Your task to perform on an android device: Go to network settings Image 0: 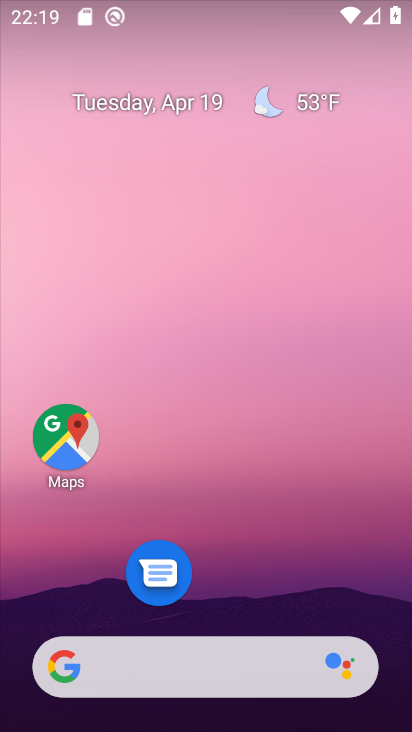
Step 0: drag from (245, 616) to (94, 21)
Your task to perform on an android device: Go to network settings Image 1: 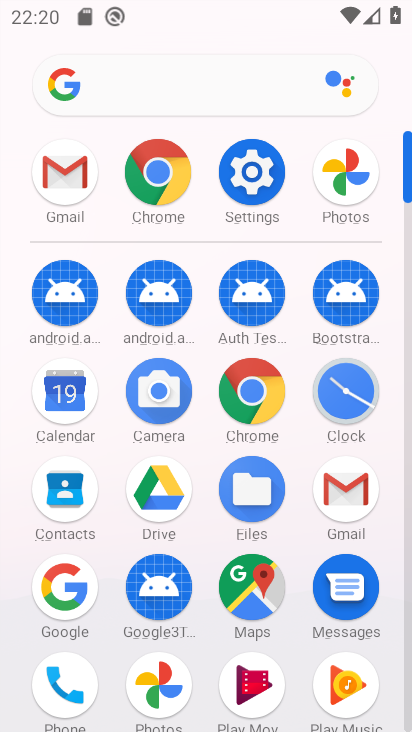
Step 1: click (254, 163)
Your task to perform on an android device: Go to network settings Image 2: 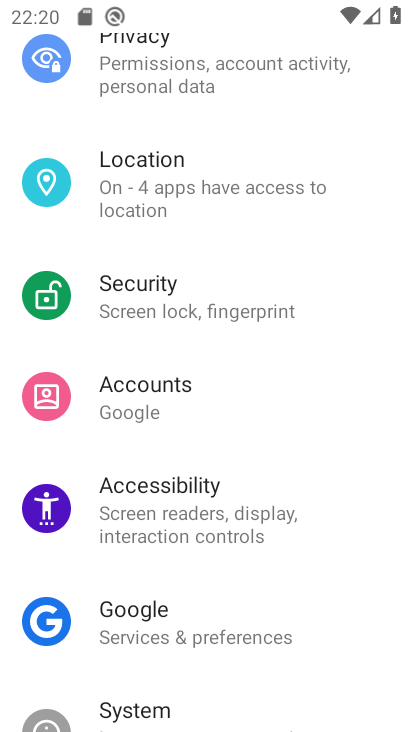
Step 2: drag from (194, 113) to (205, 627)
Your task to perform on an android device: Go to network settings Image 3: 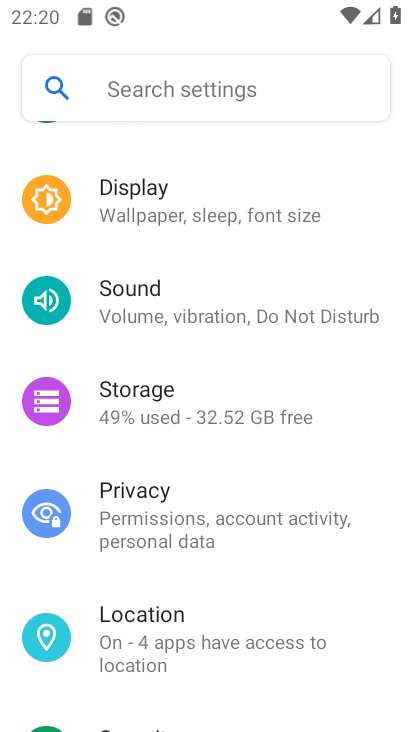
Step 3: drag from (224, 191) to (212, 580)
Your task to perform on an android device: Go to network settings Image 4: 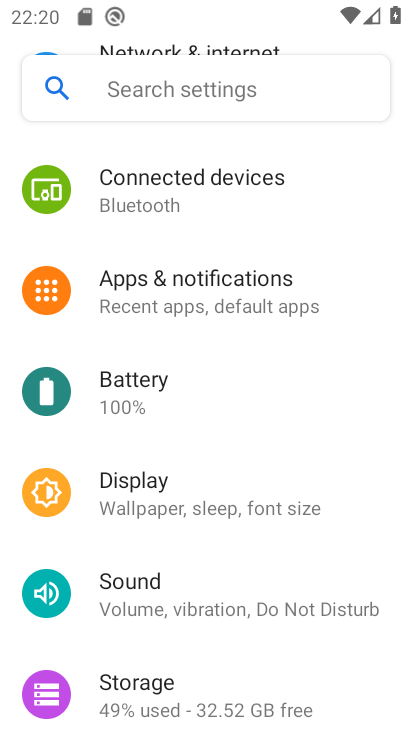
Step 4: drag from (189, 209) to (196, 684)
Your task to perform on an android device: Go to network settings Image 5: 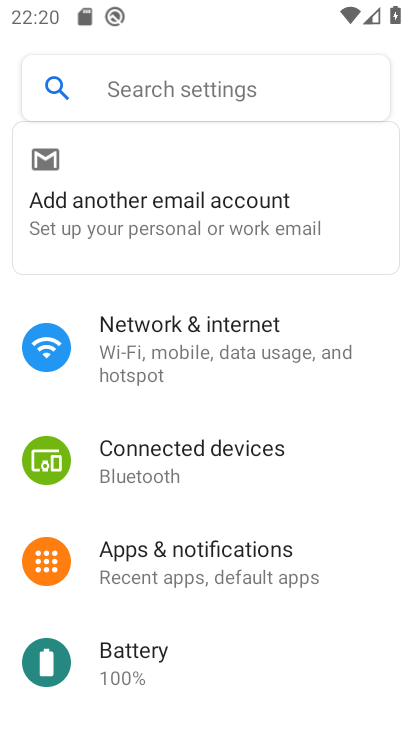
Step 5: click (174, 352)
Your task to perform on an android device: Go to network settings Image 6: 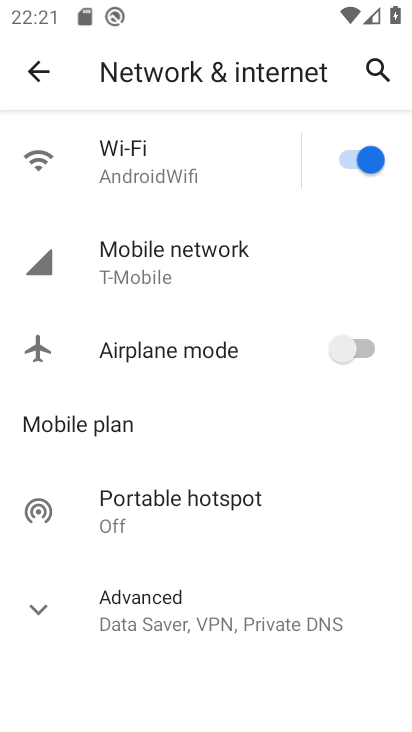
Step 6: click (96, 611)
Your task to perform on an android device: Go to network settings Image 7: 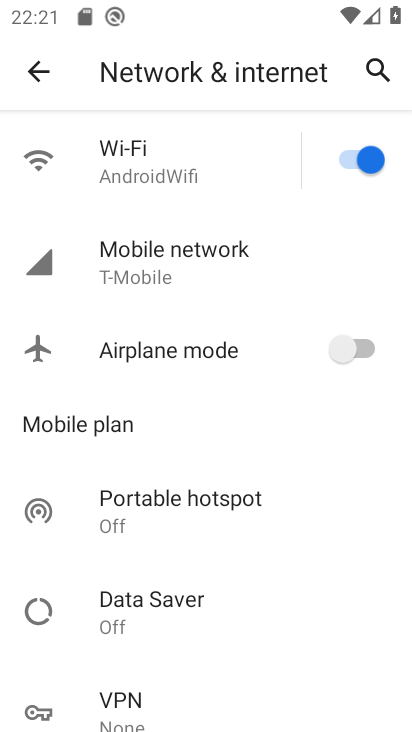
Step 7: task complete